Your task to perform on an android device: Open Google Maps and go to "Timeline" Image 0: 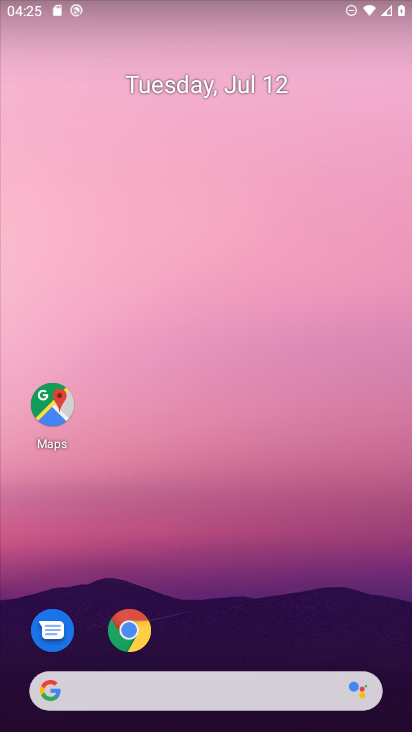
Step 0: click (55, 406)
Your task to perform on an android device: Open Google Maps and go to "Timeline" Image 1: 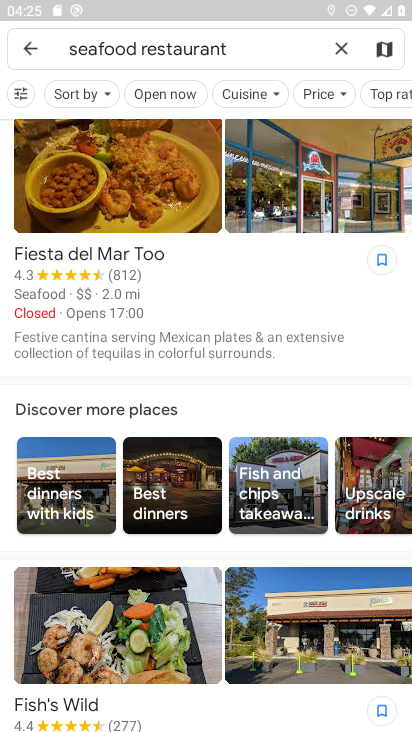
Step 1: click (340, 49)
Your task to perform on an android device: Open Google Maps and go to "Timeline" Image 2: 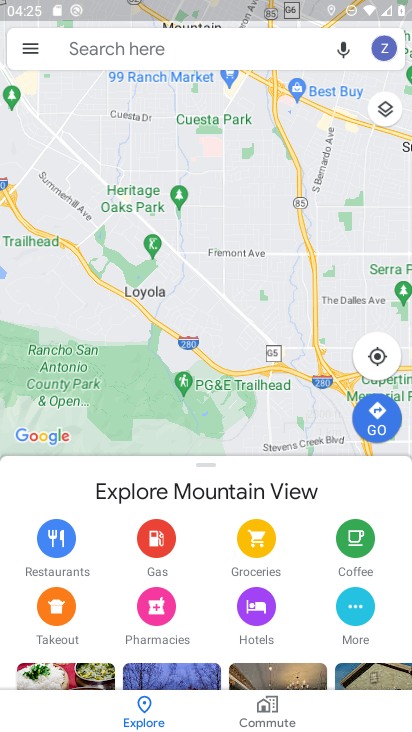
Step 2: click (26, 45)
Your task to perform on an android device: Open Google Maps and go to "Timeline" Image 3: 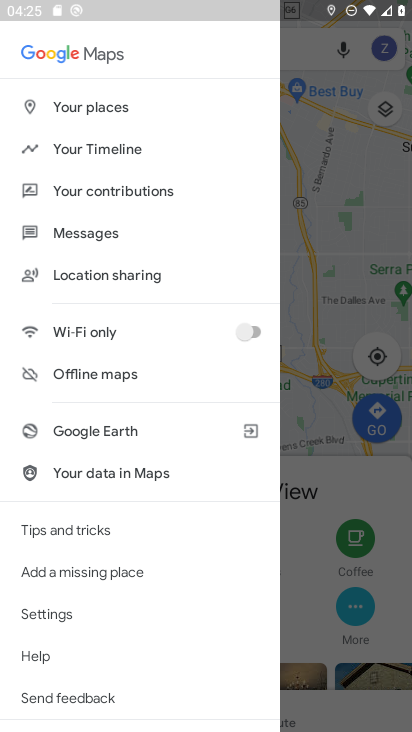
Step 3: click (97, 147)
Your task to perform on an android device: Open Google Maps and go to "Timeline" Image 4: 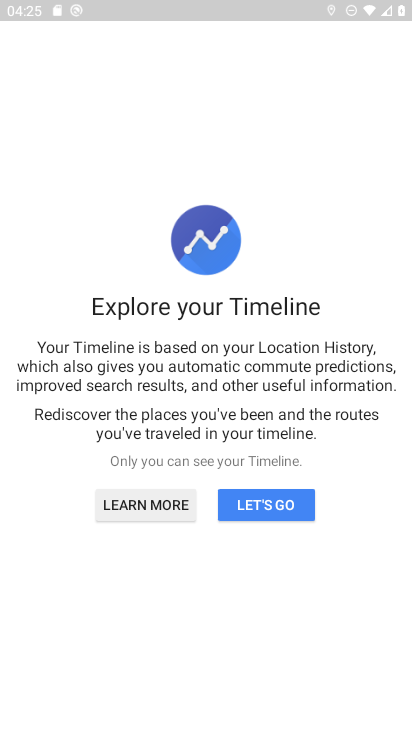
Step 4: click (270, 508)
Your task to perform on an android device: Open Google Maps and go to "Timeline" Image 5: 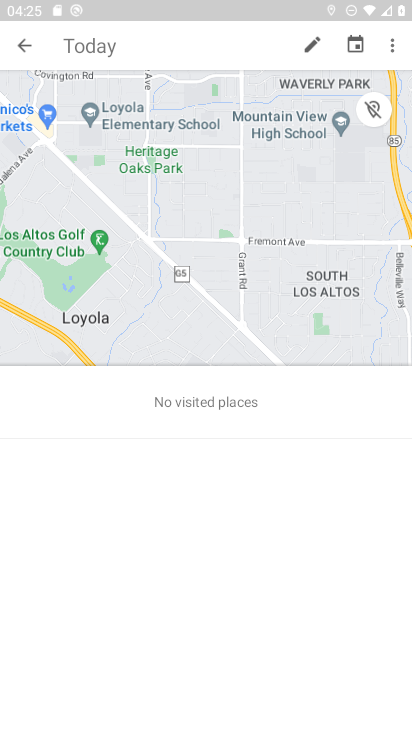
Step 5: task complete